Your task to perform on an android device: Is it going to rain tomorrow? Image 0: 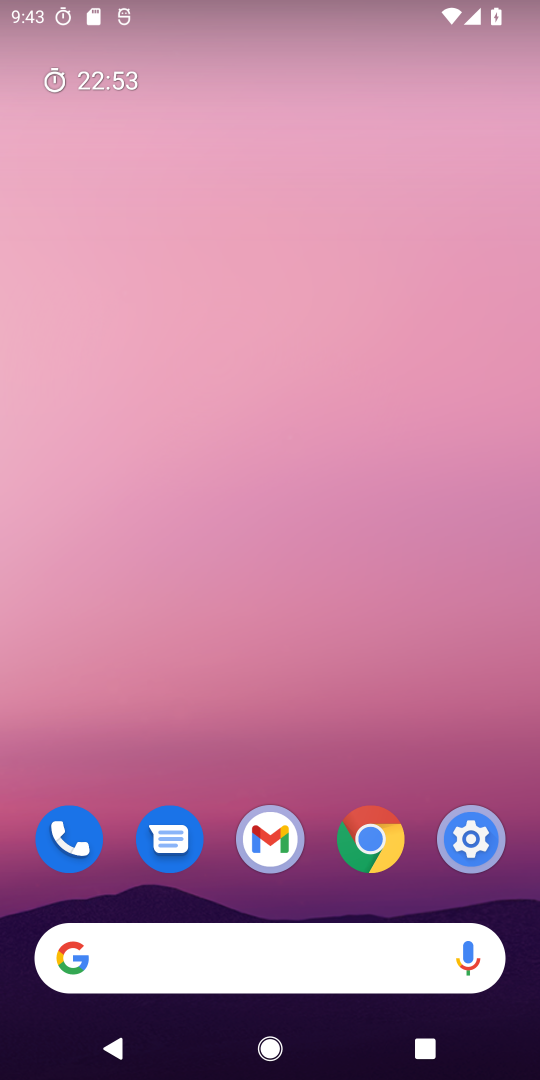
Step 0: press home button
Your task to perform on an android device: Is it going to rain tomorrow? Image 1: 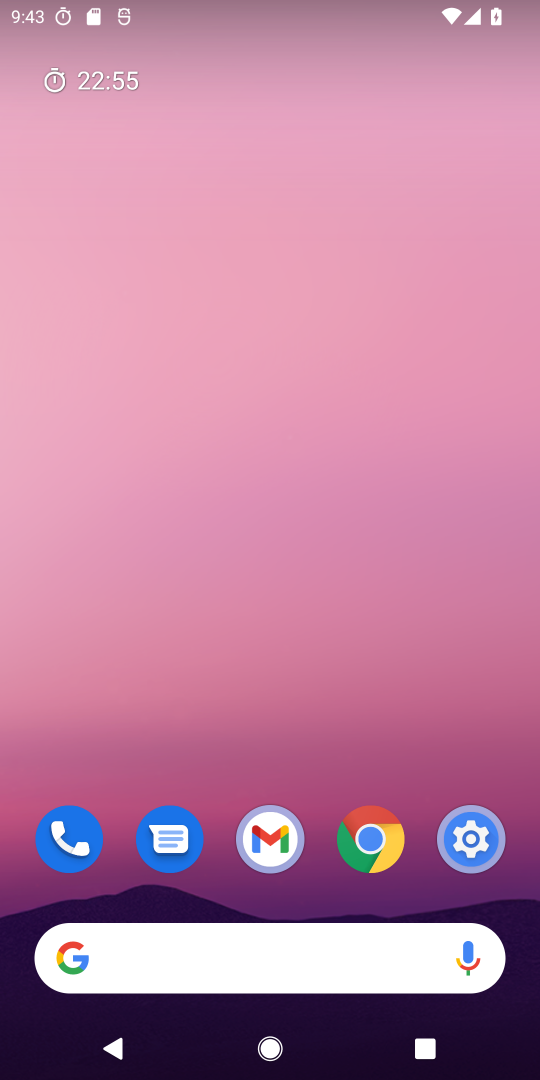
Step 1: click (228, 954)
Your task to perform on an android device: Is it going to rain tomorrow? Image 2: 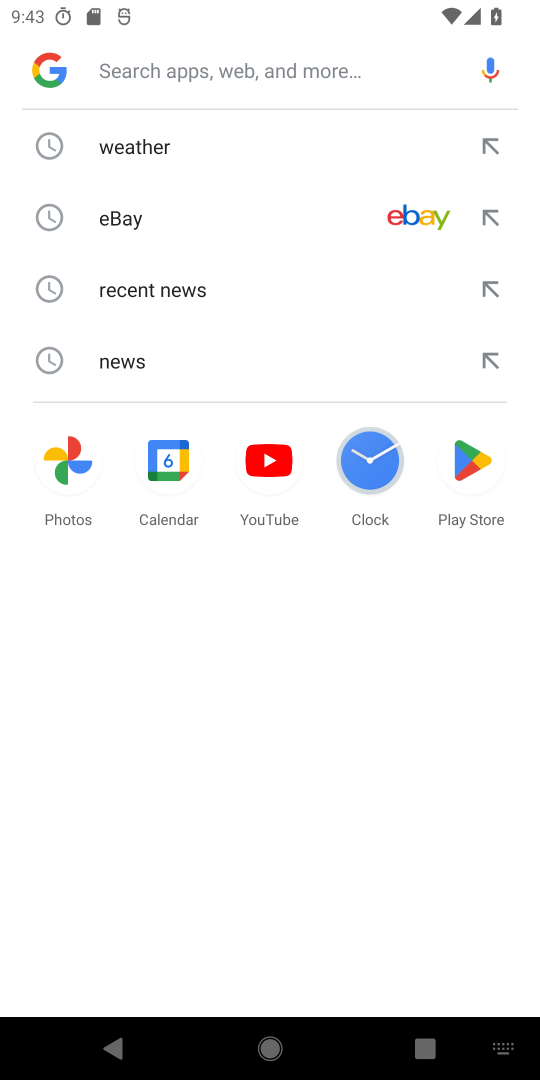
Step 2: click (181, 146)
Your task to perform on an android device: Is it going to rain tomorrow? Image 3: 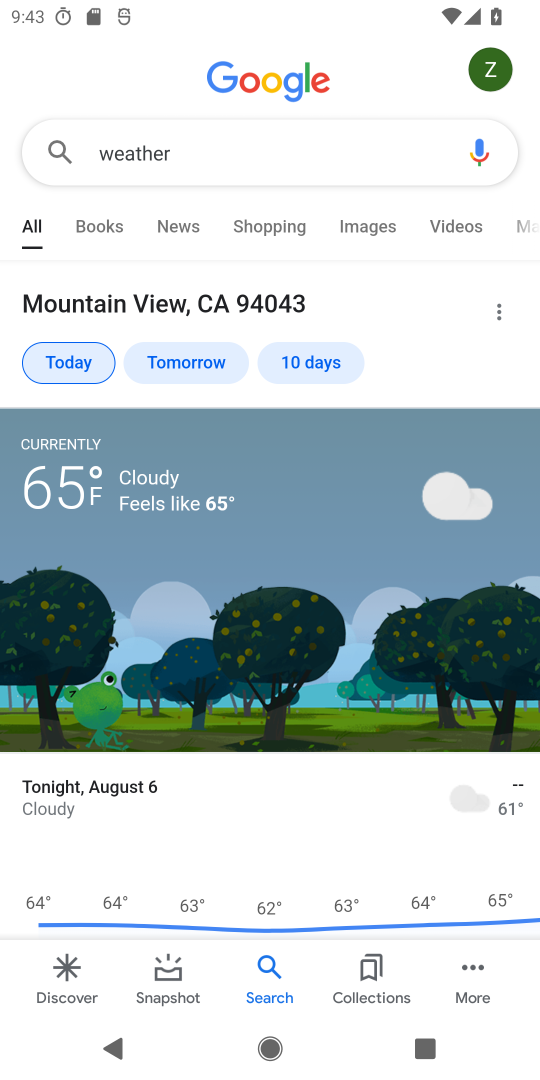
Step 3: drag from (257, 828) to (256, 277)
Your task to perform on an android device: Is it going to rain tomorrow? Image 4: 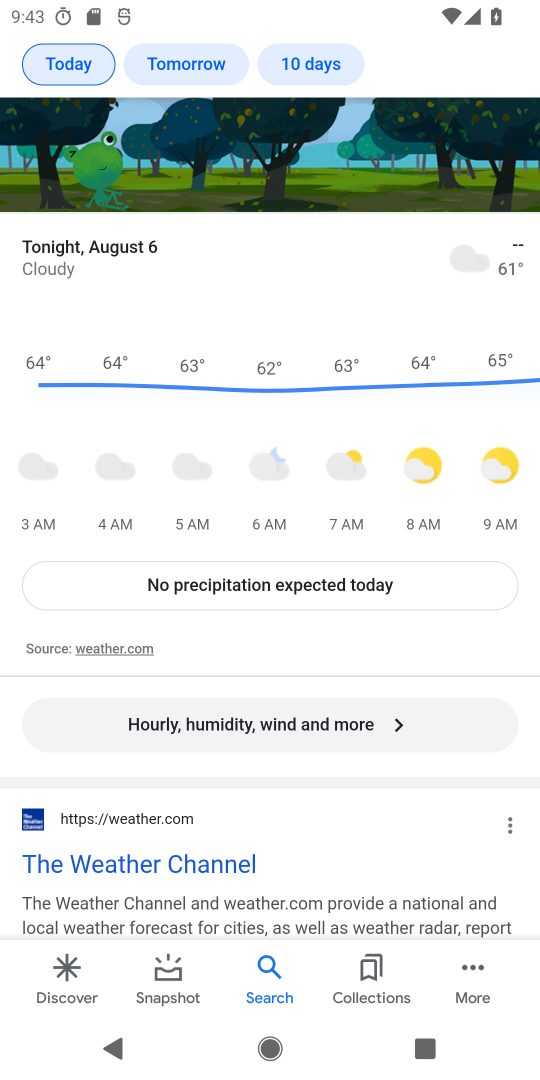
Step 4: click (197, 45)
Your task to perform on an android device: Is it going to rain tomorrow? Image 5: 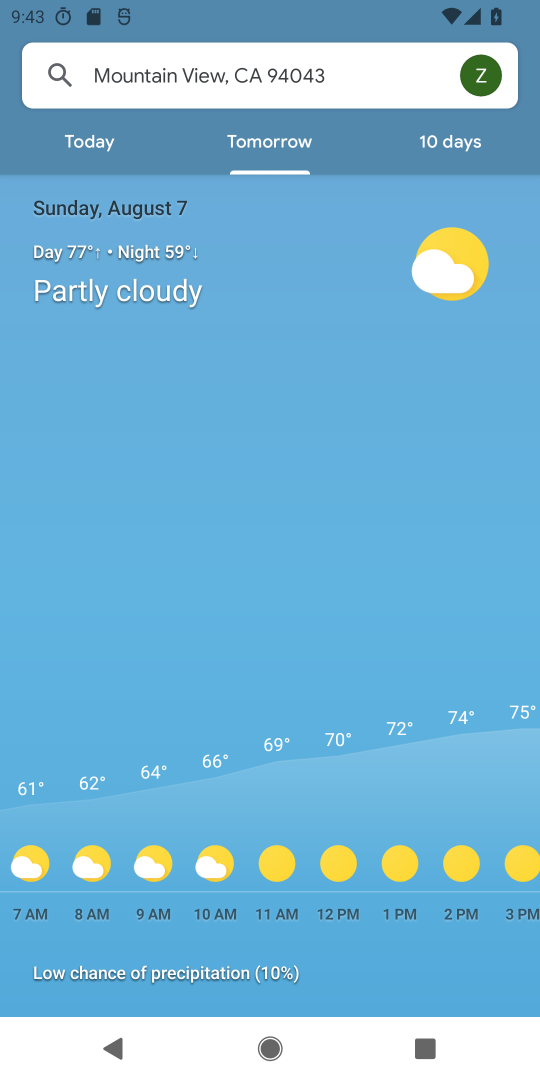
Step 5: task complete